Your task to perform on an android device: Clear the shopping cart on walmart. Image 0: 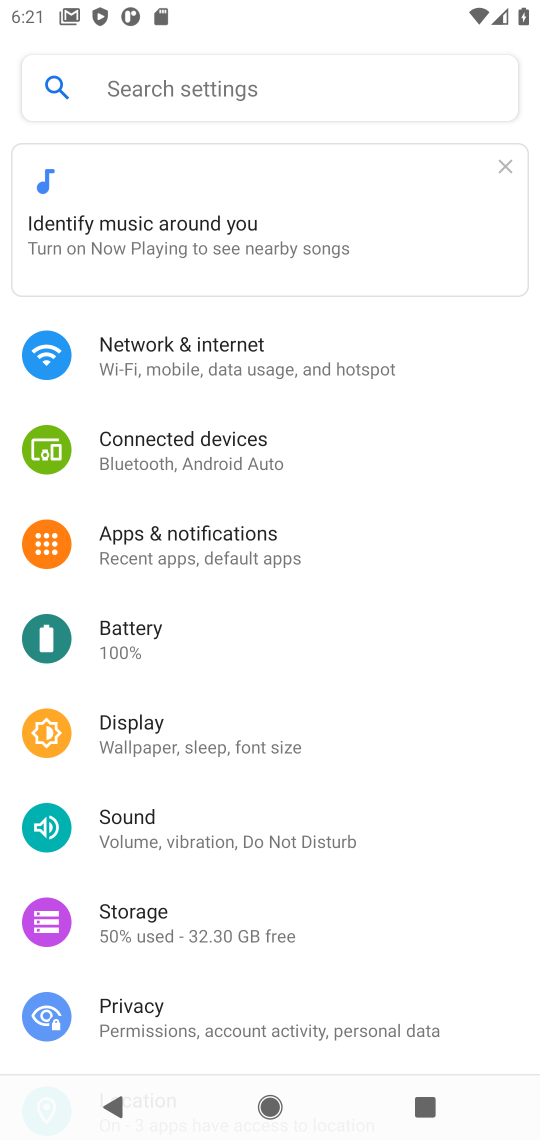
Step 0: press home button
Your task to perform on an android device: Clear the shopping cart on walmart. Image 1: 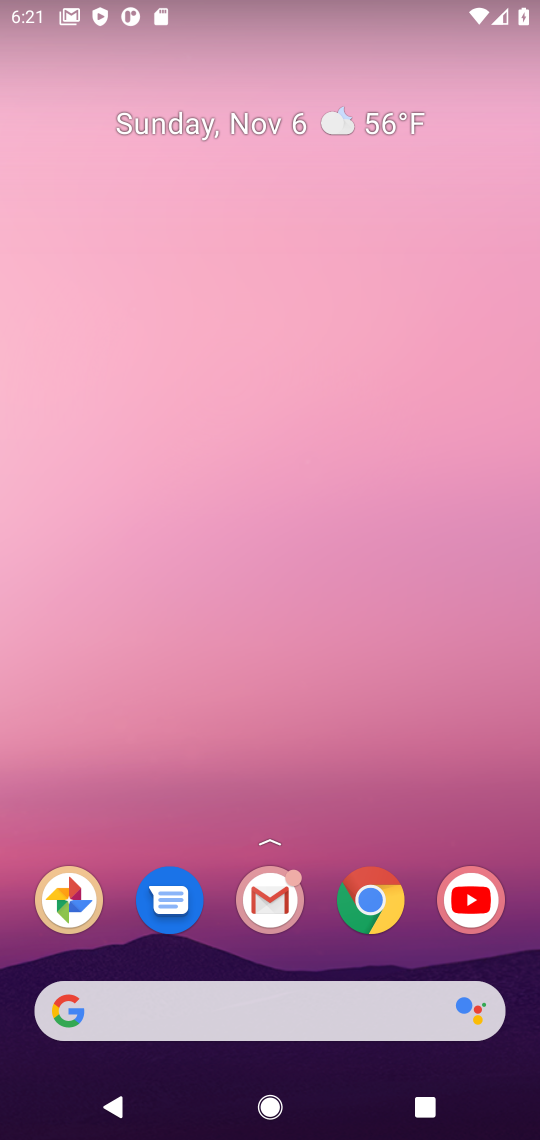
Step 1: drag from (321, 961) to (269, 26)
Your task to perform on an android device: Clear the shopping cart on walmart. Image 2: 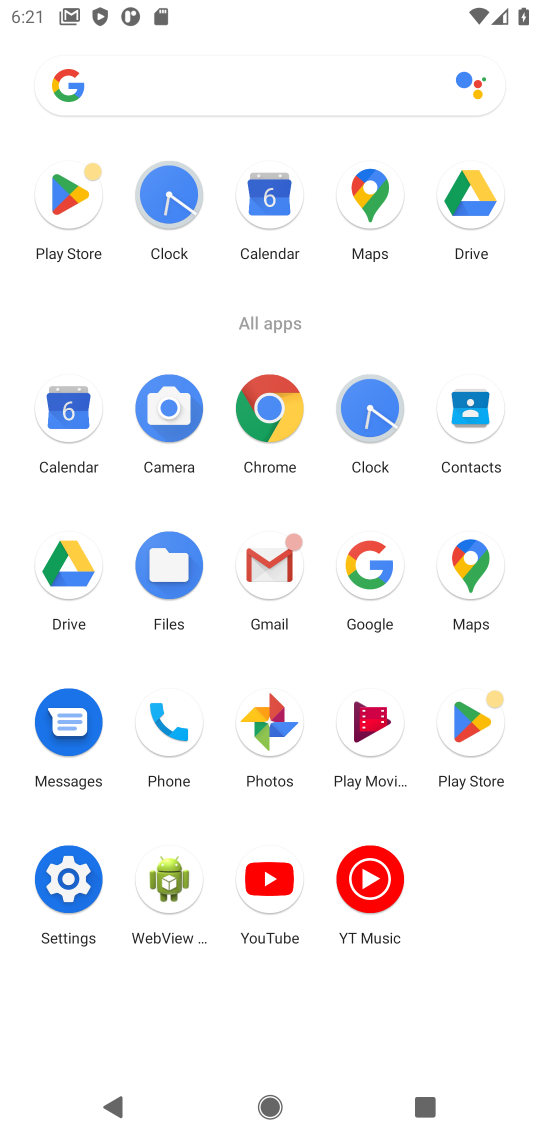
Step 2: click (273, 403)
Your task to perform on an android device: Clear the shopping cart on walmart. Image 3: 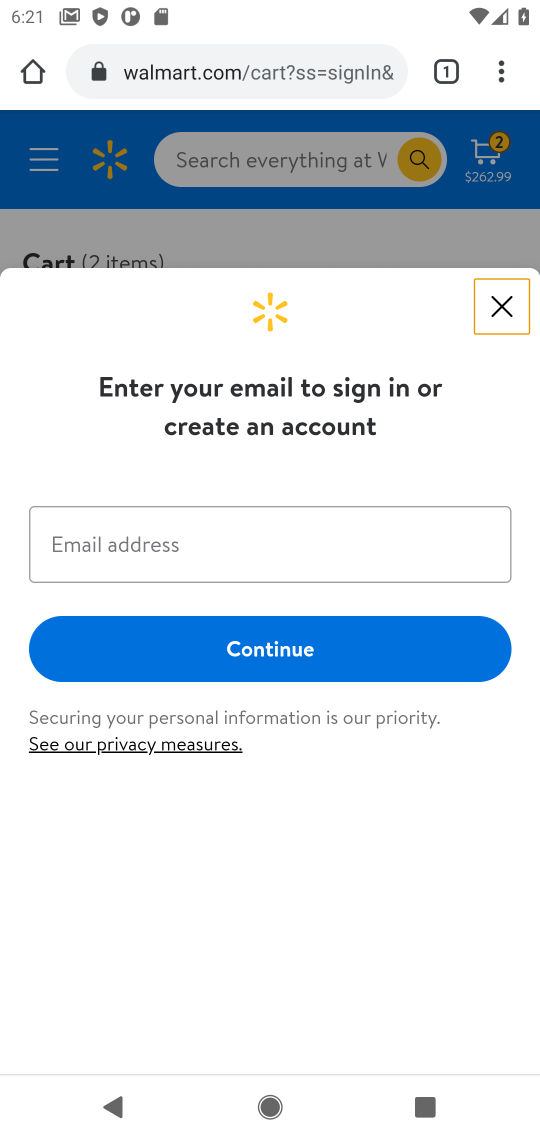
Step 3: click (499, 310)
Your task to perform on an android device: Clear the shopping cart on walmart. Image 4: 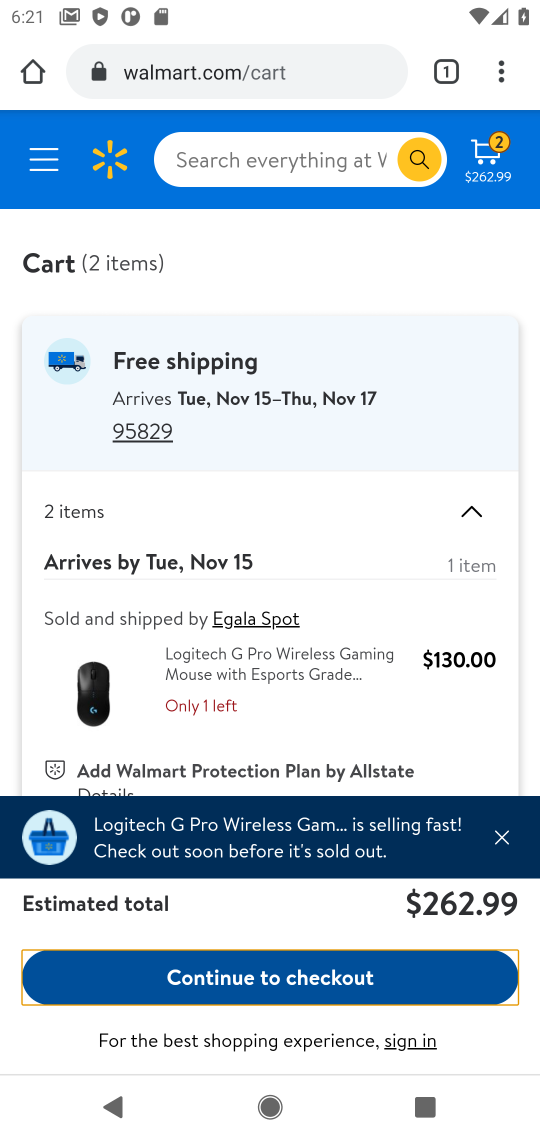
Step 4: drag from (335, 709) to (369, 278)
Your task to perform on an android device: Clear the shopping cart on walmart. Image 5: 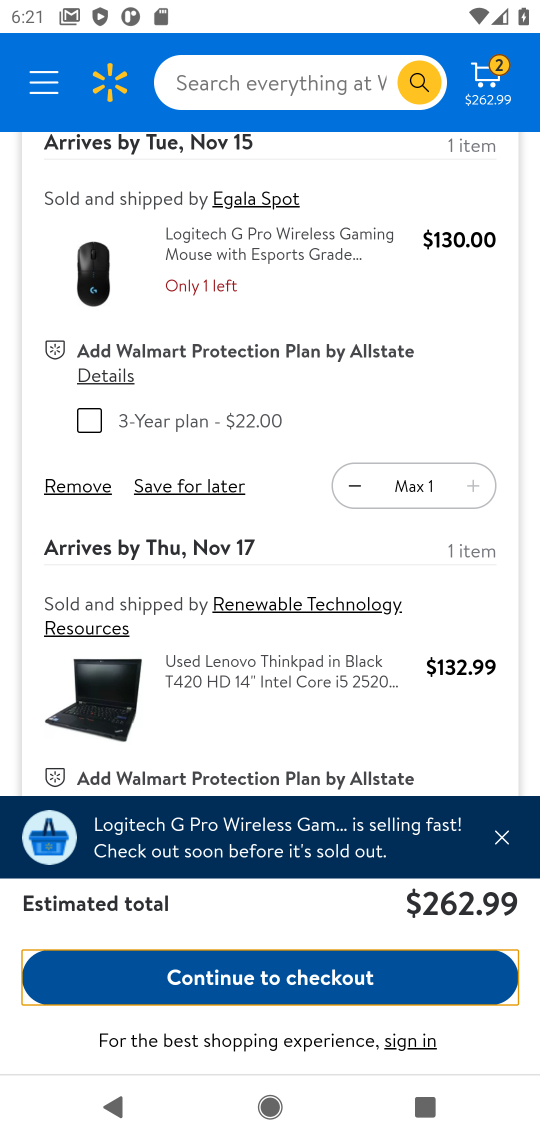
Step 5: click (77, 491)
Your task to perform on an android device: Clear the shopping cart on walmart. Image 6: 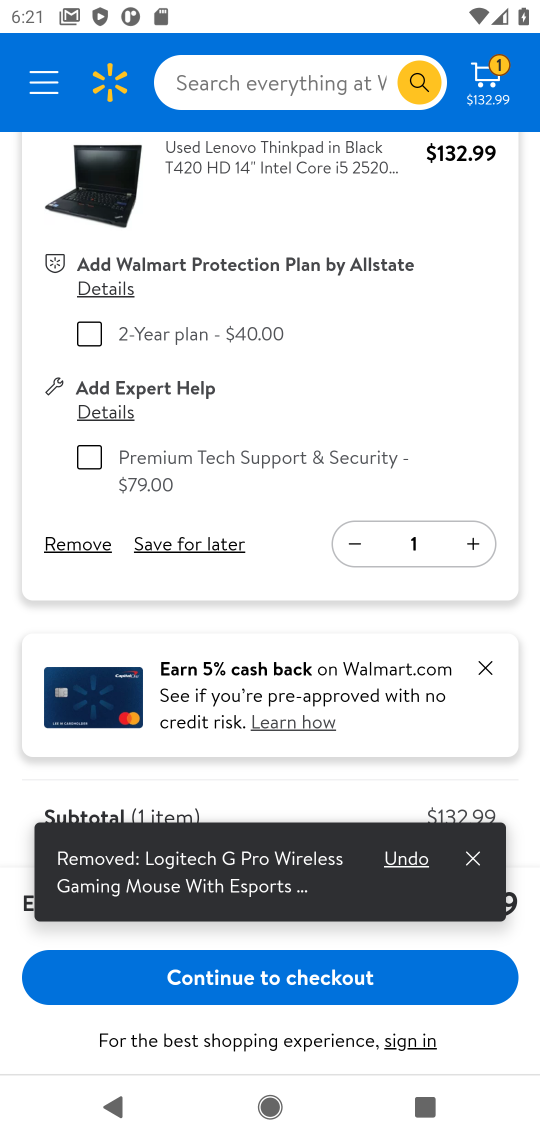
Step 6: click (85, 544)
Your task to perform on an android device: Clear the shopping cart on walmart. Image 7: 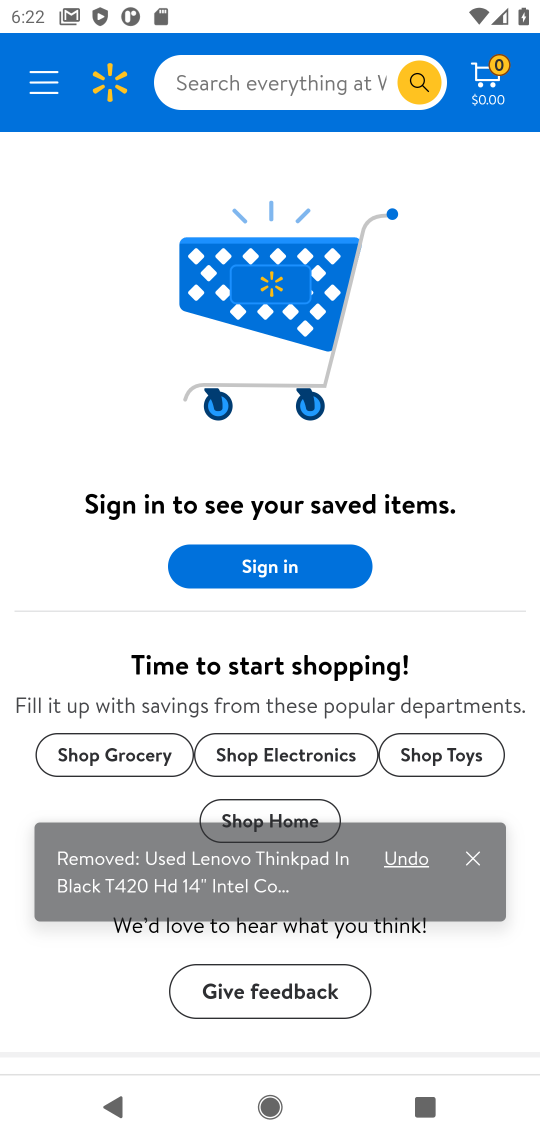
Step 7: task complete